Your task to perform on an android device: turn pop-ups on in chrome Image 0: 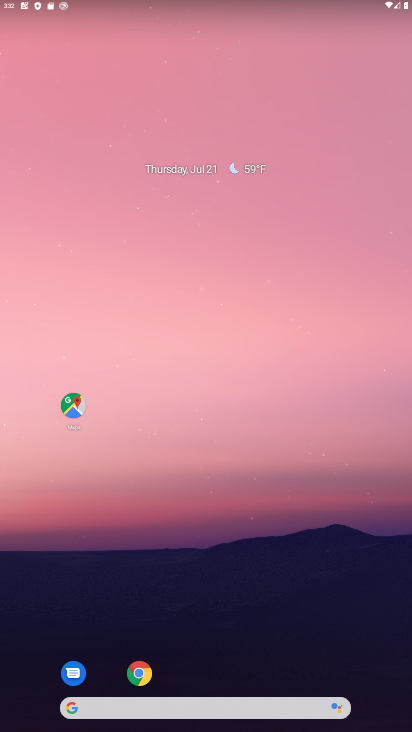
Step 0: click (138, 674)
Your task to perform on an android device: turn pop-ups on in chrome Image 1: 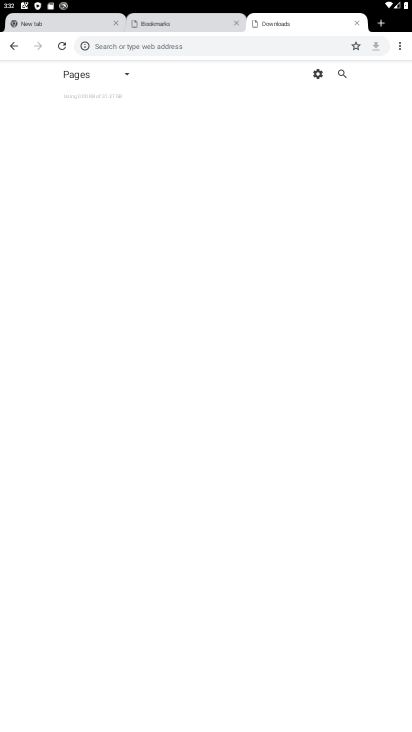
Step 1: click (399, 49)
Your task to perform on an android device: turn pop-ups on in chrome Image 2: 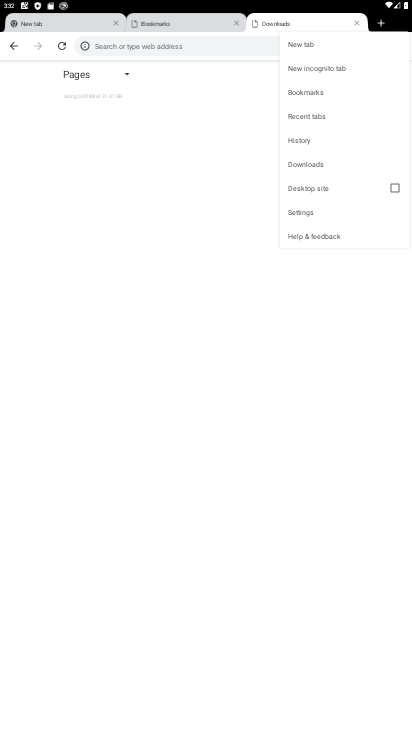
Step 2: click (294, 217)
Your task to perform on an android device: turn pop-ups on in chrome Image 3: 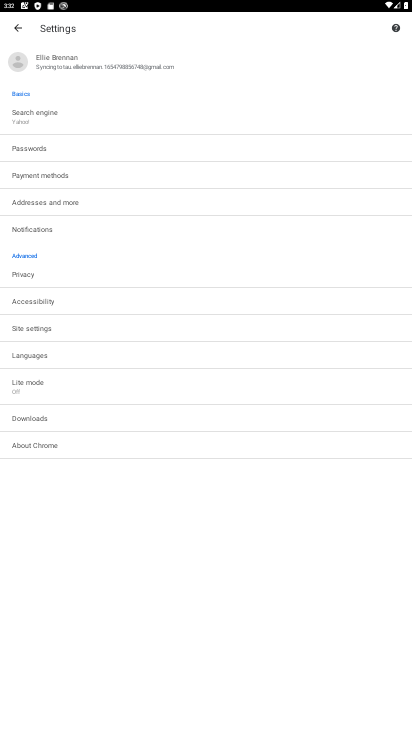
Step 3: click (29, 328)
Your task to perform on an android device: turn pop-ups on in chrome Image 4: 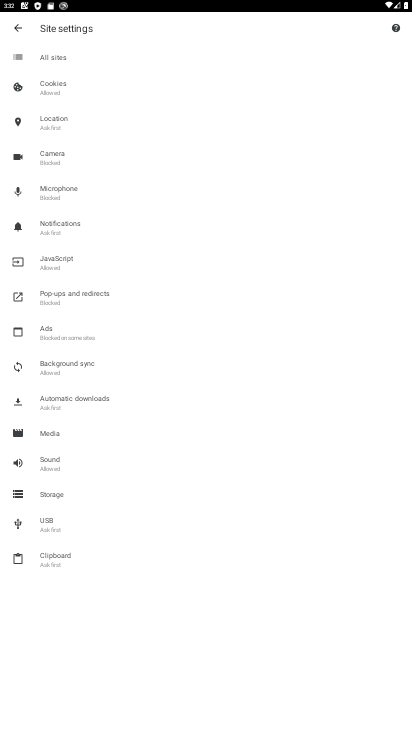
Step 4: click (51, 290)
Your task to perform on an android device: turn pop-ups on in chrome Image 5: 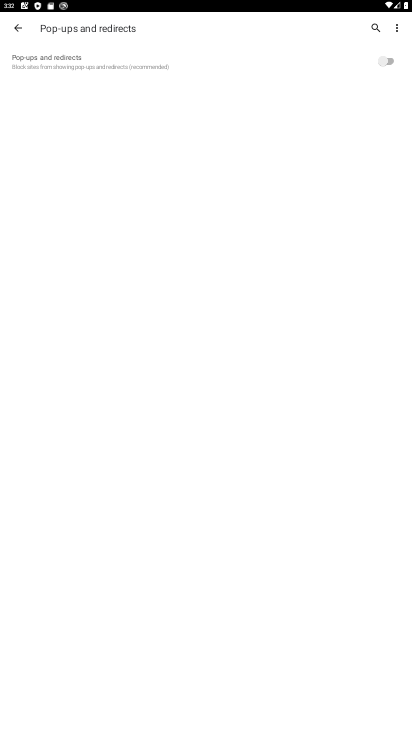
Step 5: click (389, 60)
Your task to perform on an android device: turn pop-ups on in chrome Image 6: 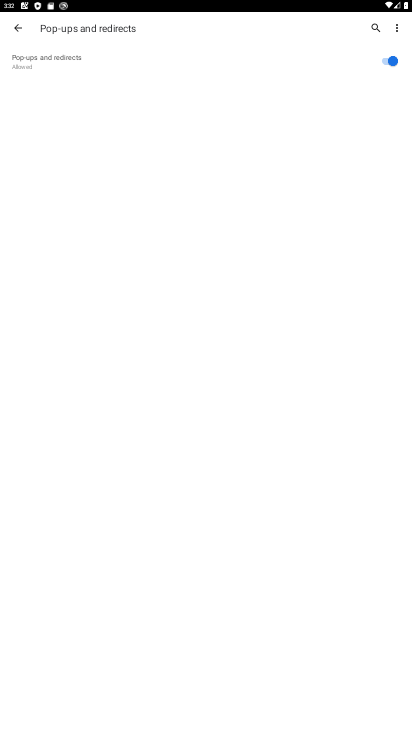
Step 6: task complete